Your task to perform on an android device: star an email in the gmail app Image 0: 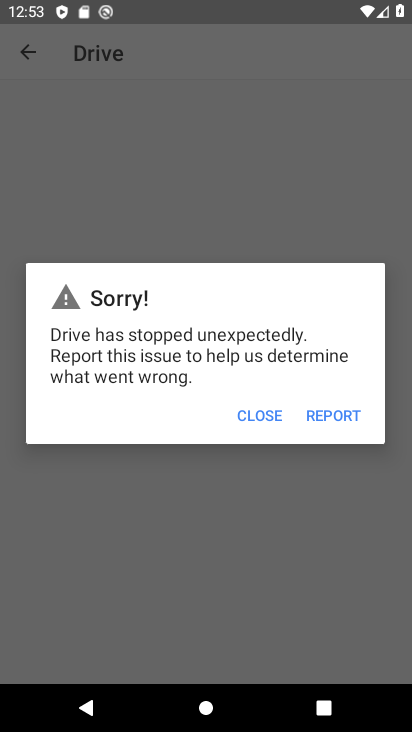
Step 0: press home button
Your task to perform on an android device: star an email in the gmail app Image 1: 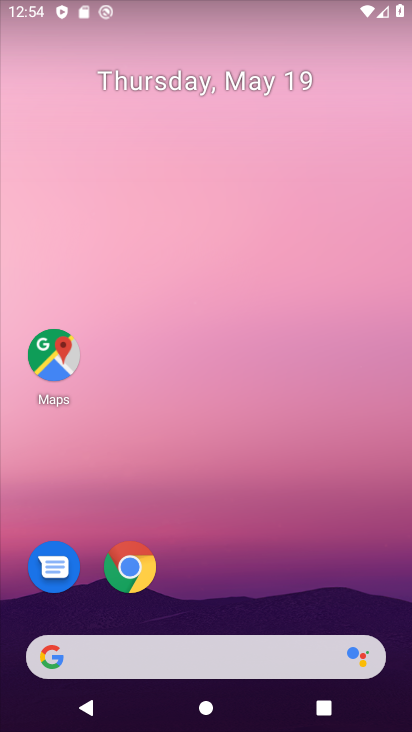
Step 1: drag from (149, 651) to (269, 205)
Your task to perform on an android device: star an email in the gmail app Image 2: 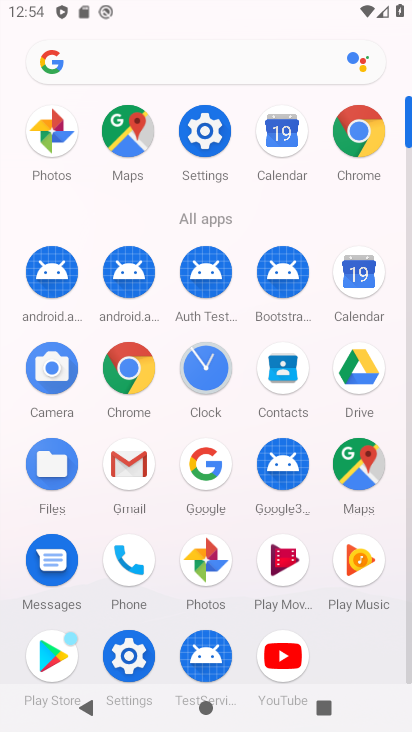
Step 2: click (118, 465)
Your task to perform on an android device: star an email in the gmail app Image 3: 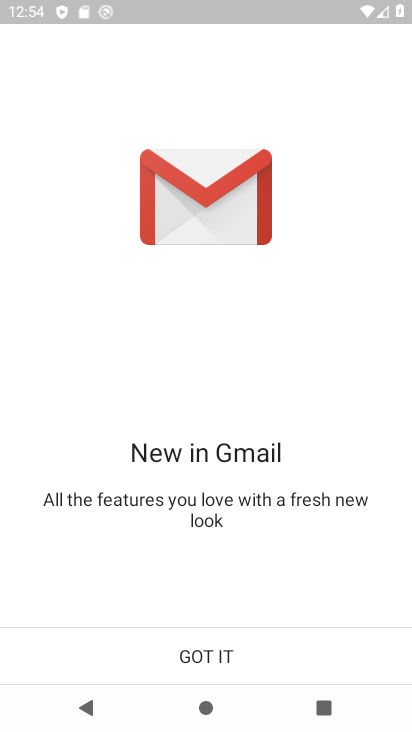
Step 3: click (208, 659)
Your task to perform on an android device: star an email in the gmail app Image 4: 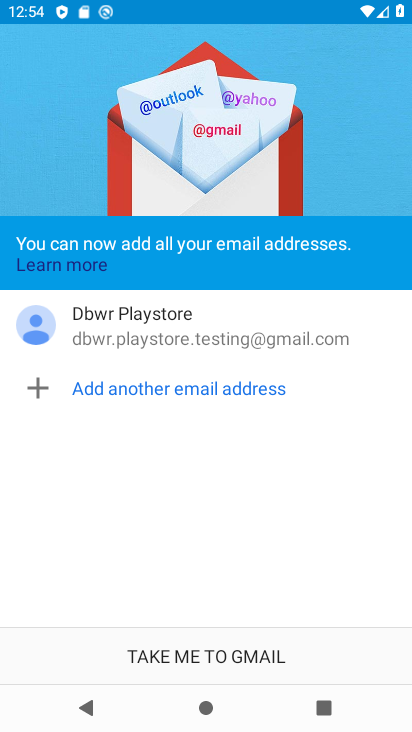
Step 4: click (232, 652)
Your task to perform on an android device: star an email in the gmail app Image 5: 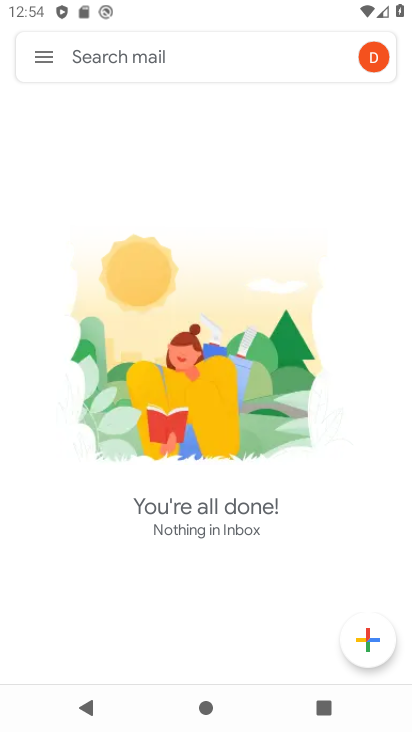
Step 5: task complete